Your task to perform on an android device: Is it going to rain this weekend? Image 0: 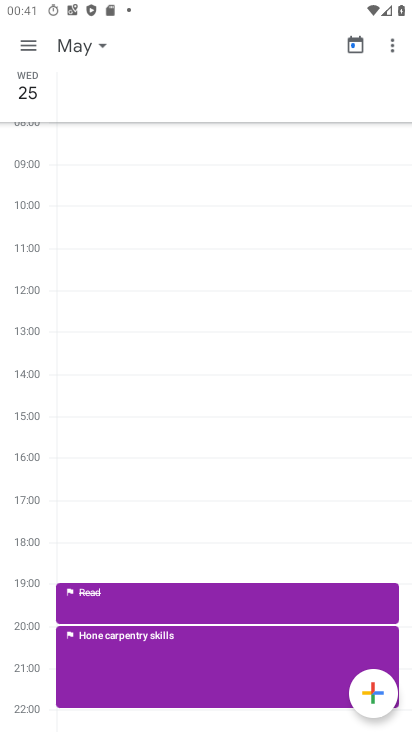
Step 0: press home button
Your task to perform on an android device: Is it going to rain this weekend? Image 1: 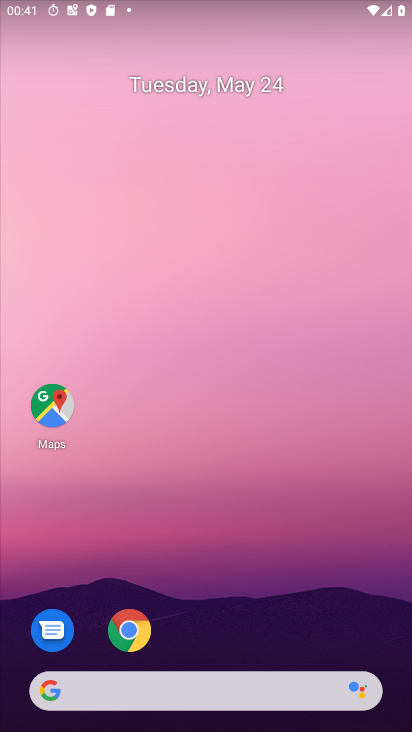
Step 1: click (110, 689)
Your task to perform on an android device: Is it going to rain this weekend? Image 2: 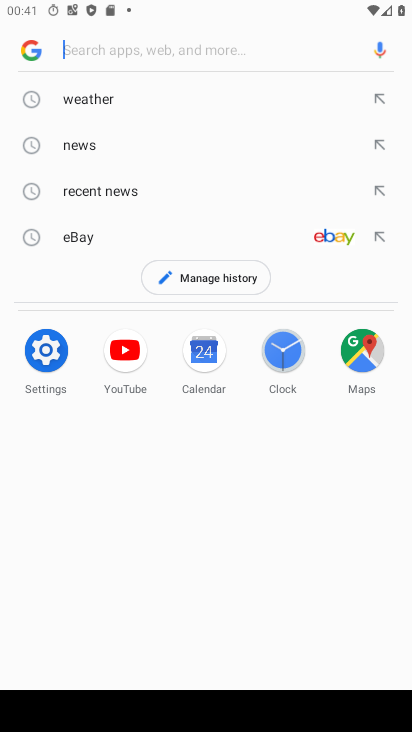
Step 2: click (76, 103)
Your task to perform on an android device: Is it going to rain this weekend? Image 3: 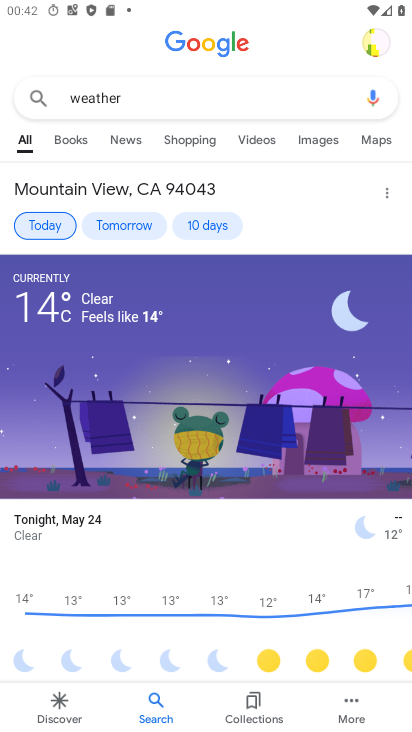
Step 3: click (216, 227)
Your task to perform on an android device: Is it going to rain this weekend? Image 4: 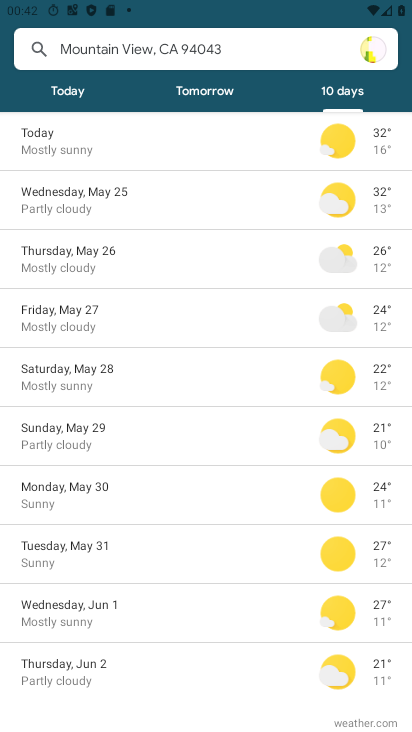
Step 4: task complete